Your task to perform on an android device: Open sound settings Image 0: 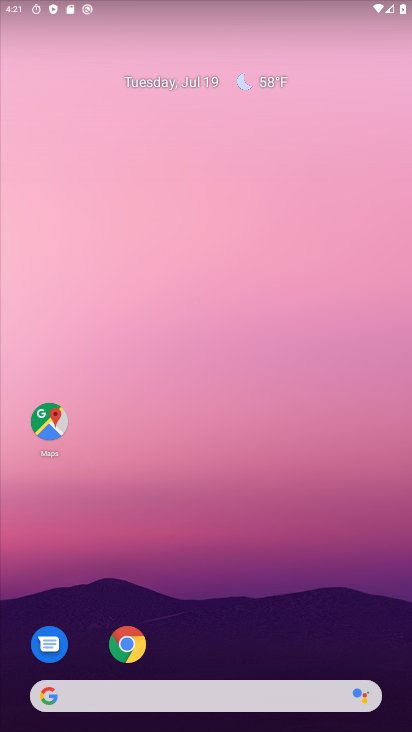
Step 0: drag from (339, 511) to (198, 0)
Your task to perform on an android device: Open sound settings Image 1: 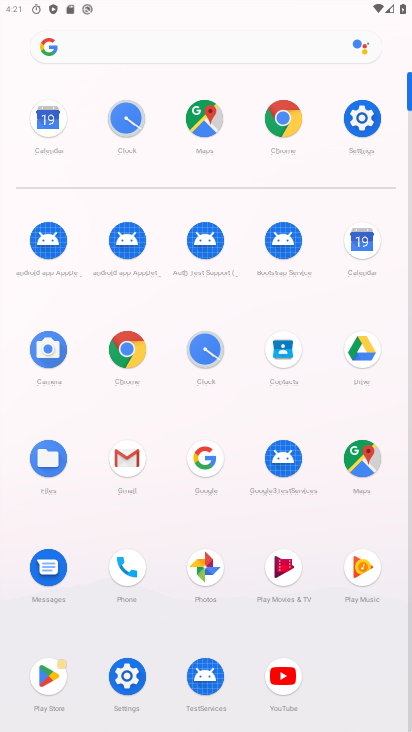
Step 1: click (361, 115)
Your task to perform on an android device: Open sound settings Image 2: 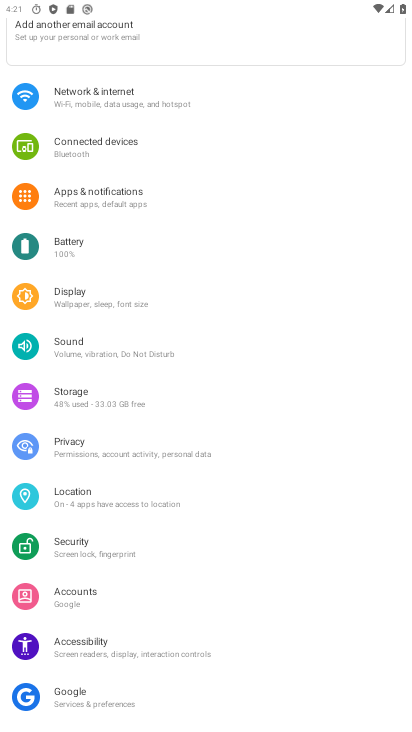
Step 2: click (61, 360)
Your task to perform on an android device: Open sound settings Image 3: 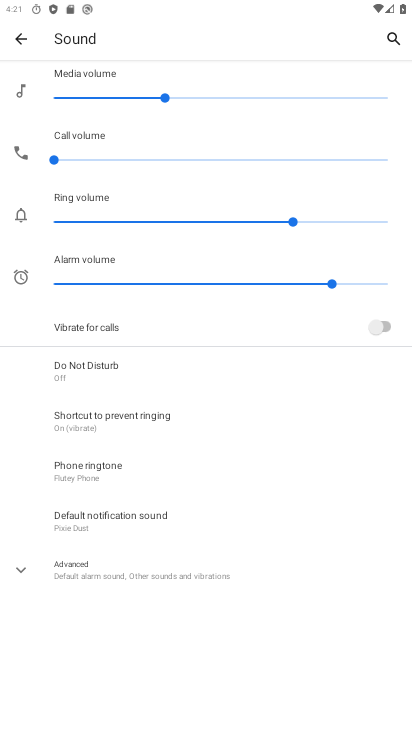
Step 3: task complete